Your task to perform on an android device: What's on my calendar tomorrow? Image 0: 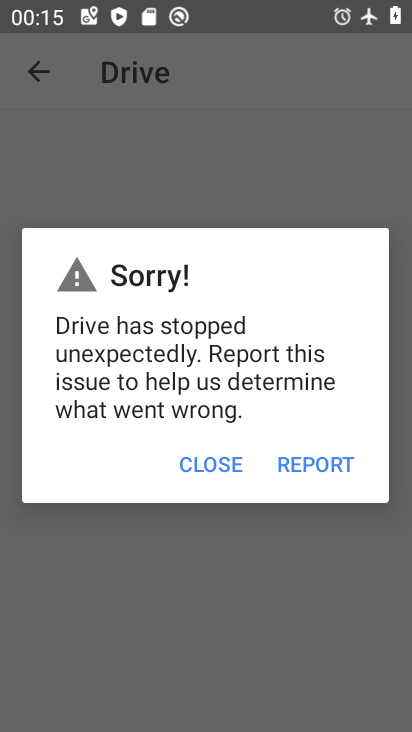
Step 0: press home button
Your task to perform on an android device: What's on my calendar tomorrow? Image 1: 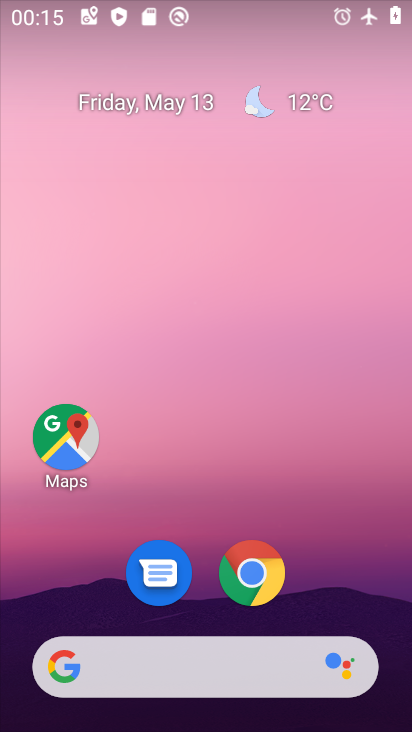
Step 1: drag from (256, 711) to (296, 13)
Your task to perform on an android device: What's on my calendar tomorrow? Image 2: 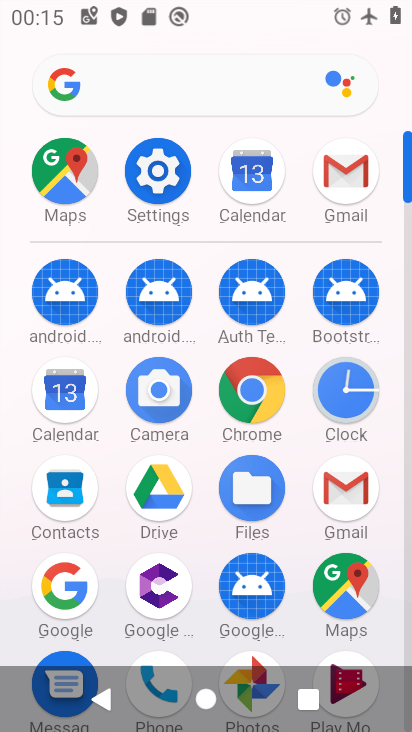
Step 2: click (66, 402)
Your task to perform on an android device: What's on my calendar tomorrow? Image 3: 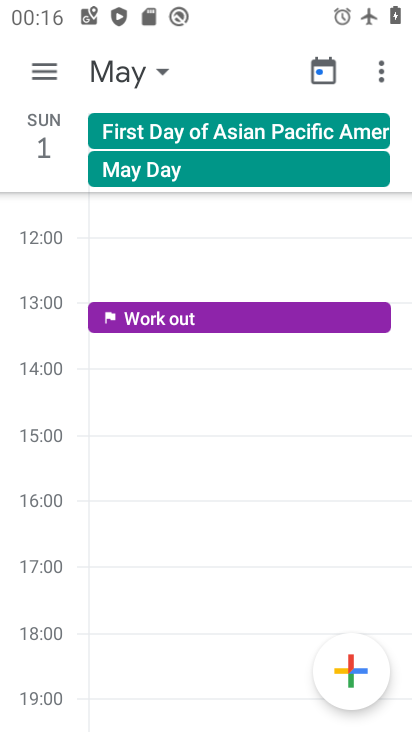
Step 3: task complete